Your task to perform on an android device: Open Chrome and go to the settings page Image 0: 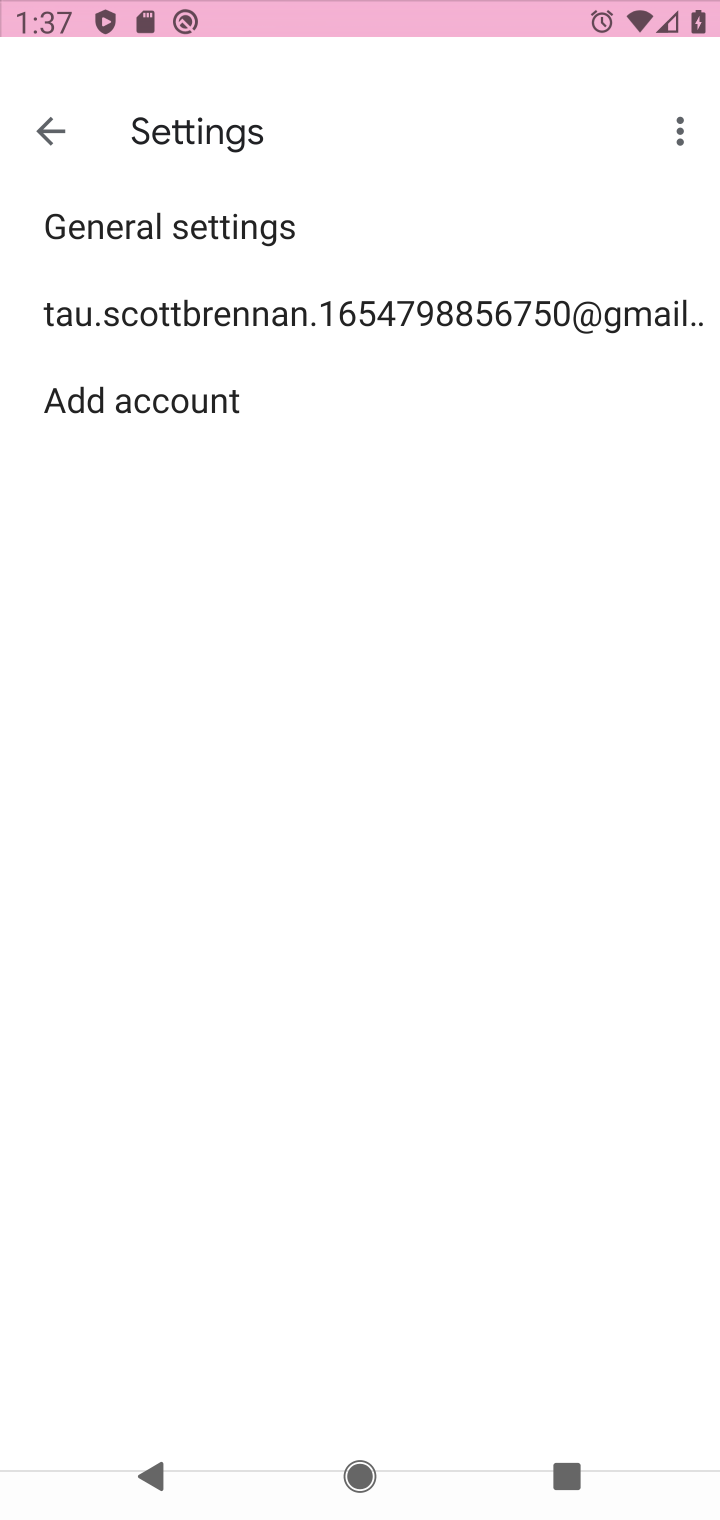
Step 0: press home button
Your task to perform on an android device: Open Chrome and go to the settings page Image 1: 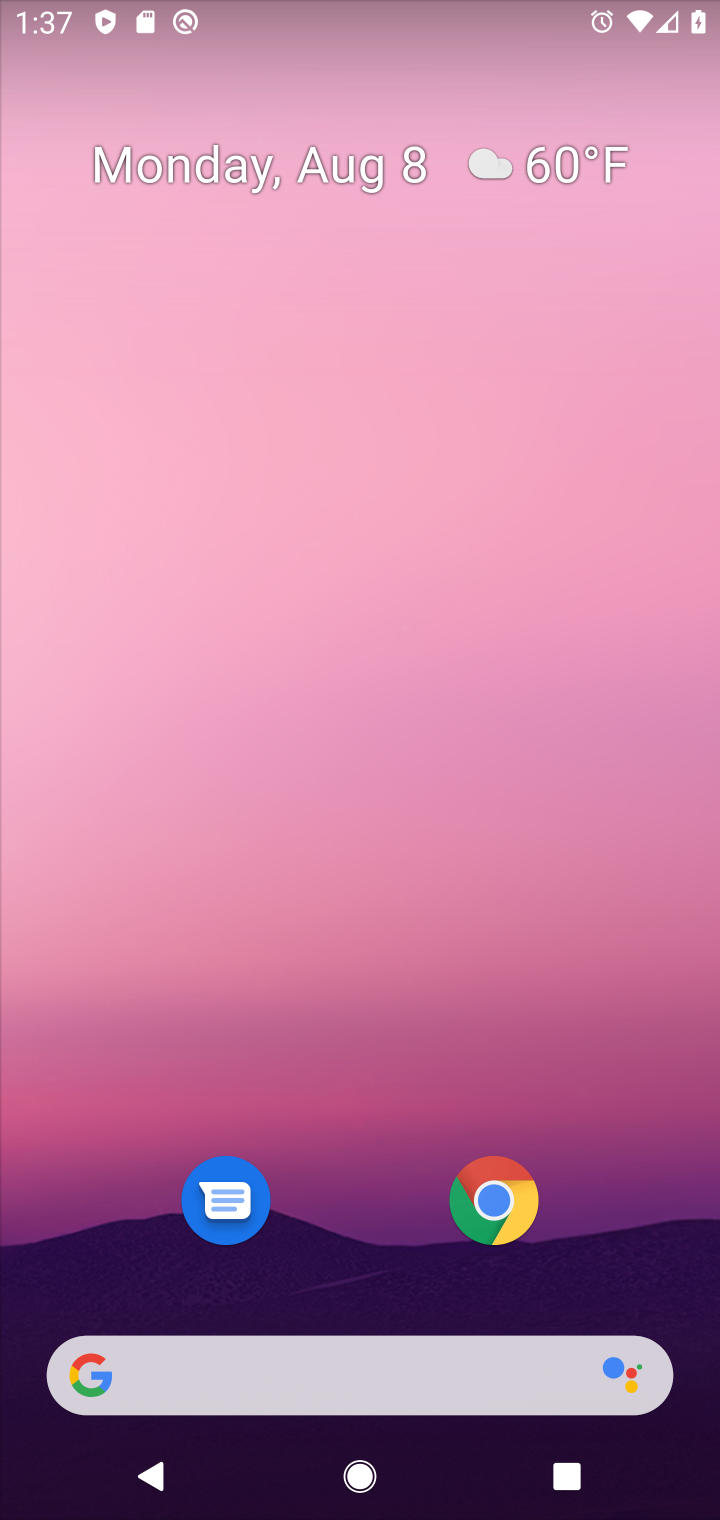
Step 1: drag from (380, 1278) to (418, 223)
Your task to perform on an android device: Open Chrome and go to the settings page Image 2: 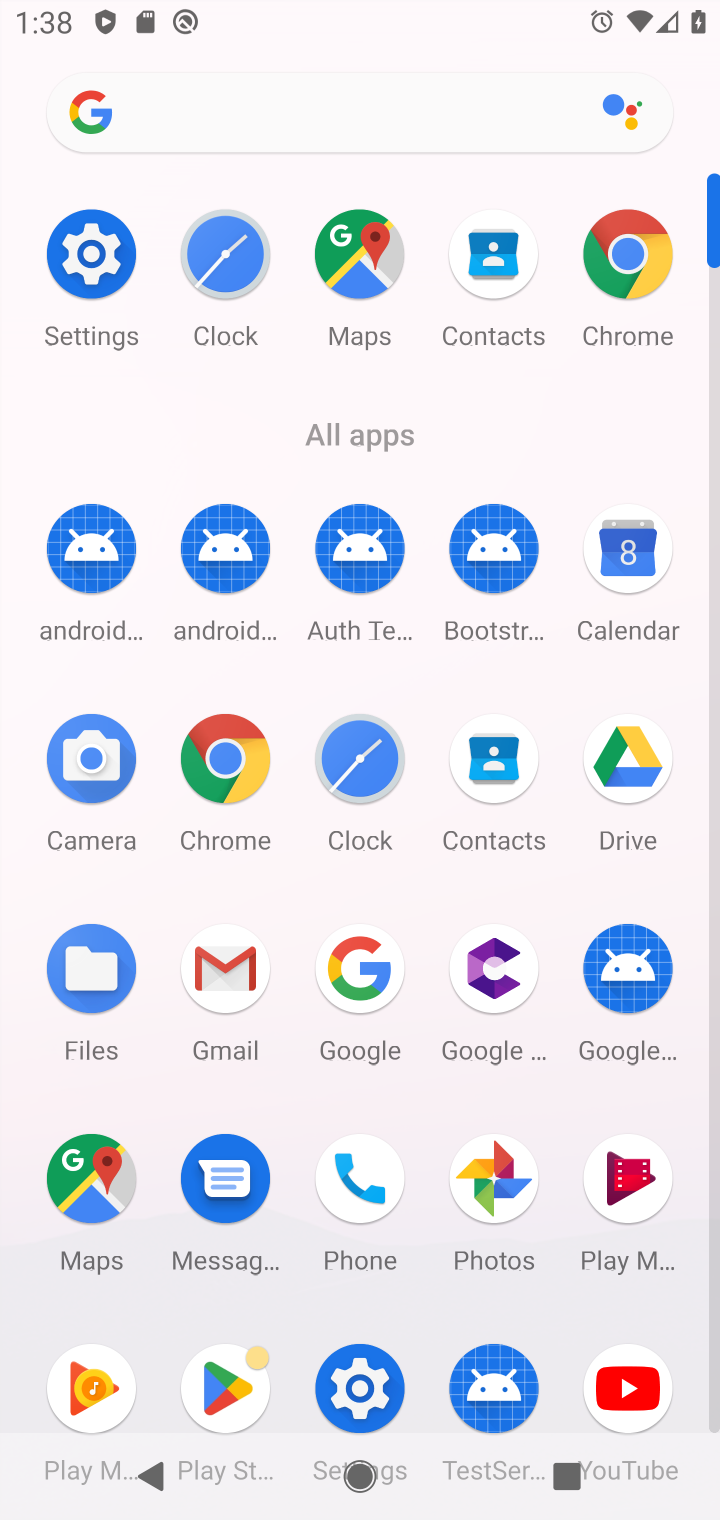
Step 2: click (216, 759)
Your task to perform on an android device: Open Chrome and go to the settings page Image 3: 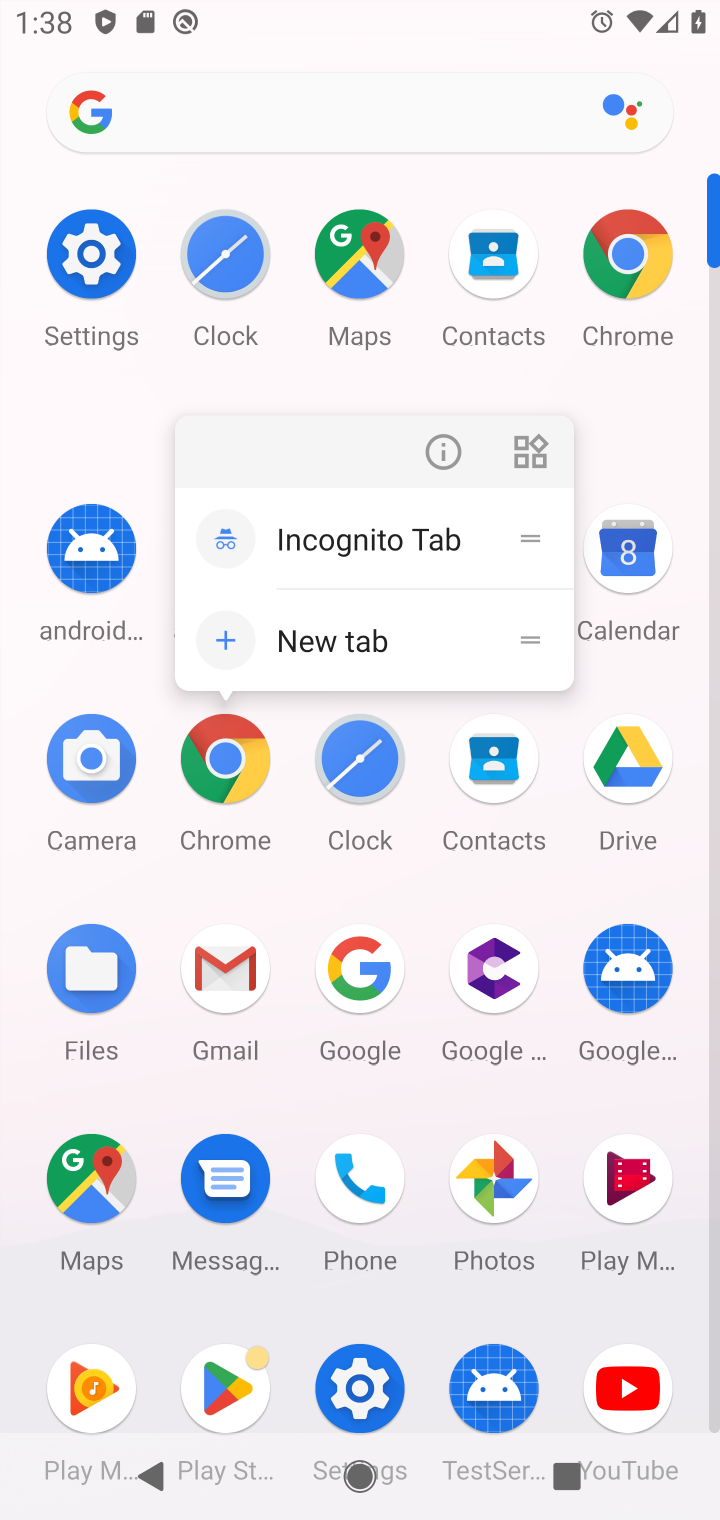
Step 3: click (216, 759)
Your task to perform on an android device: Open Chrome and go to the settings page Image 4: 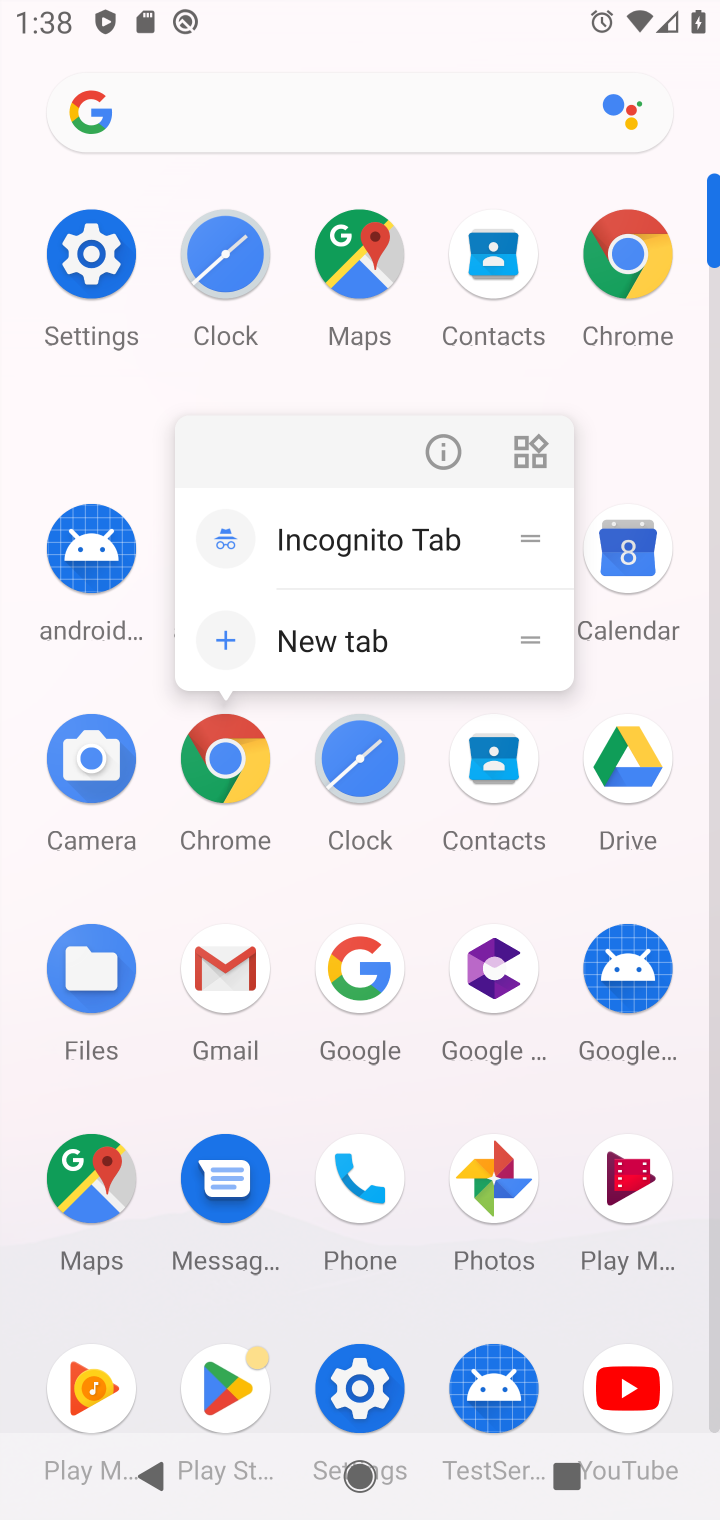
Step 4: click (228, 769)
Your task to perform on an android device: Open Chrome and go to the settings page Image 5: 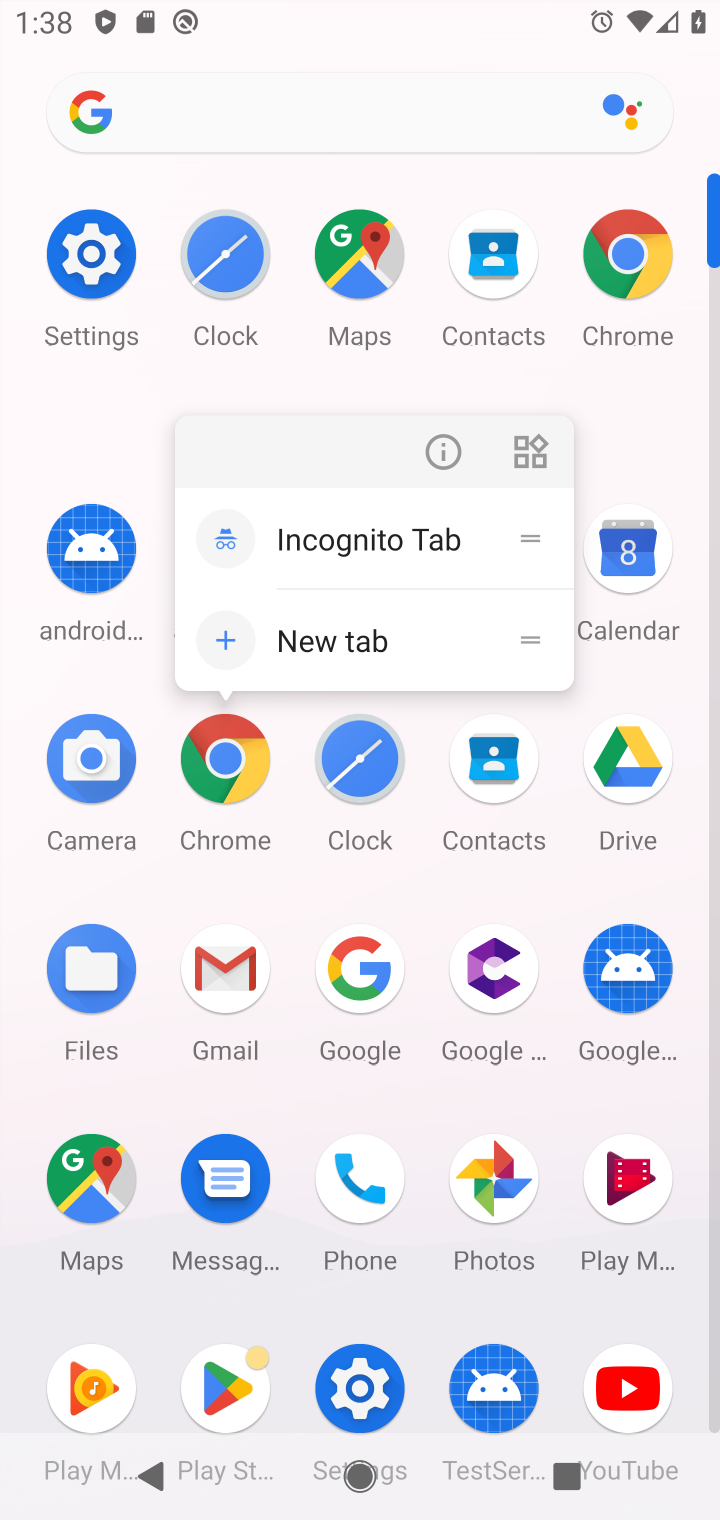
Step 5: click (609, 263)
Your task to perform on an android device: Open Chrome and go to the settings page Image 6: 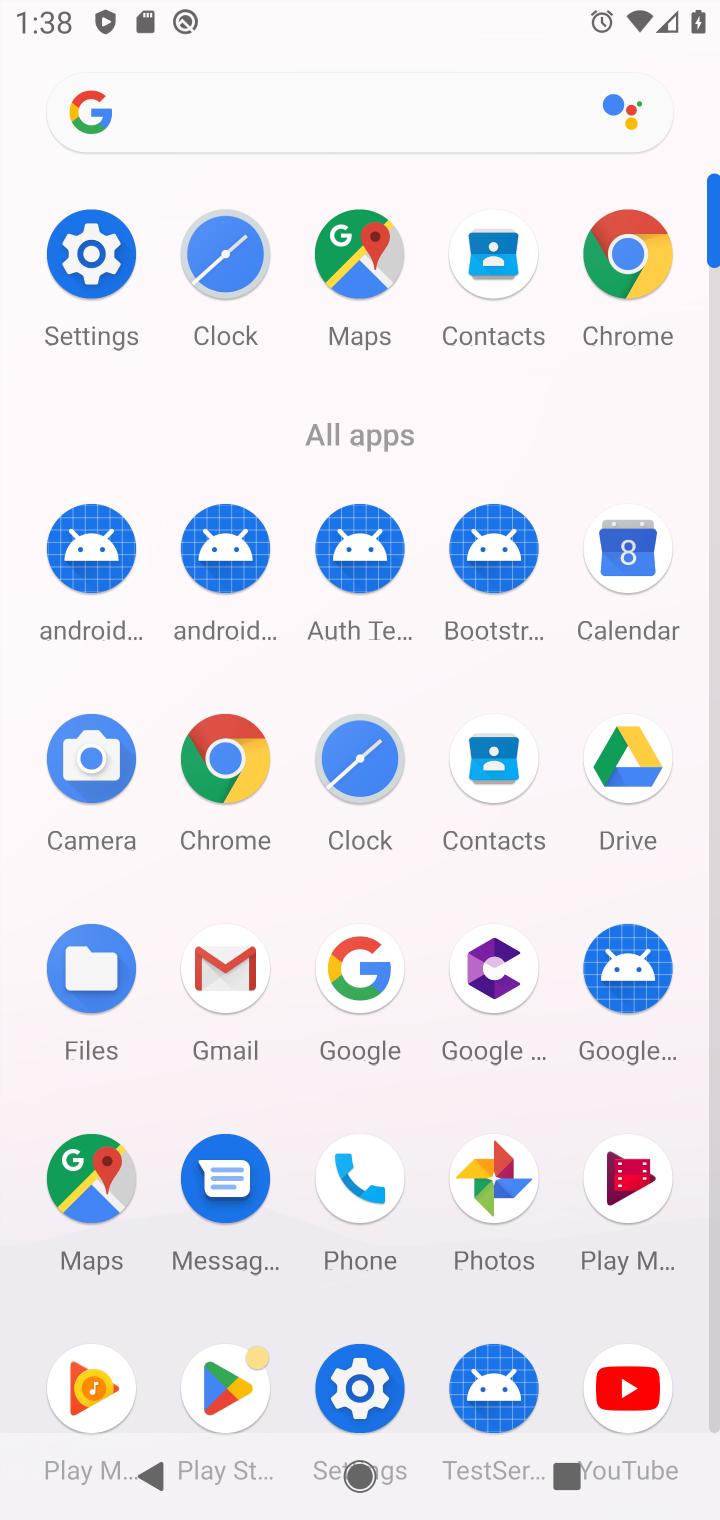
Step 6: click (641, 242)
Your task to perform on an android device: Open Chrome and go to the settings page Image 7: 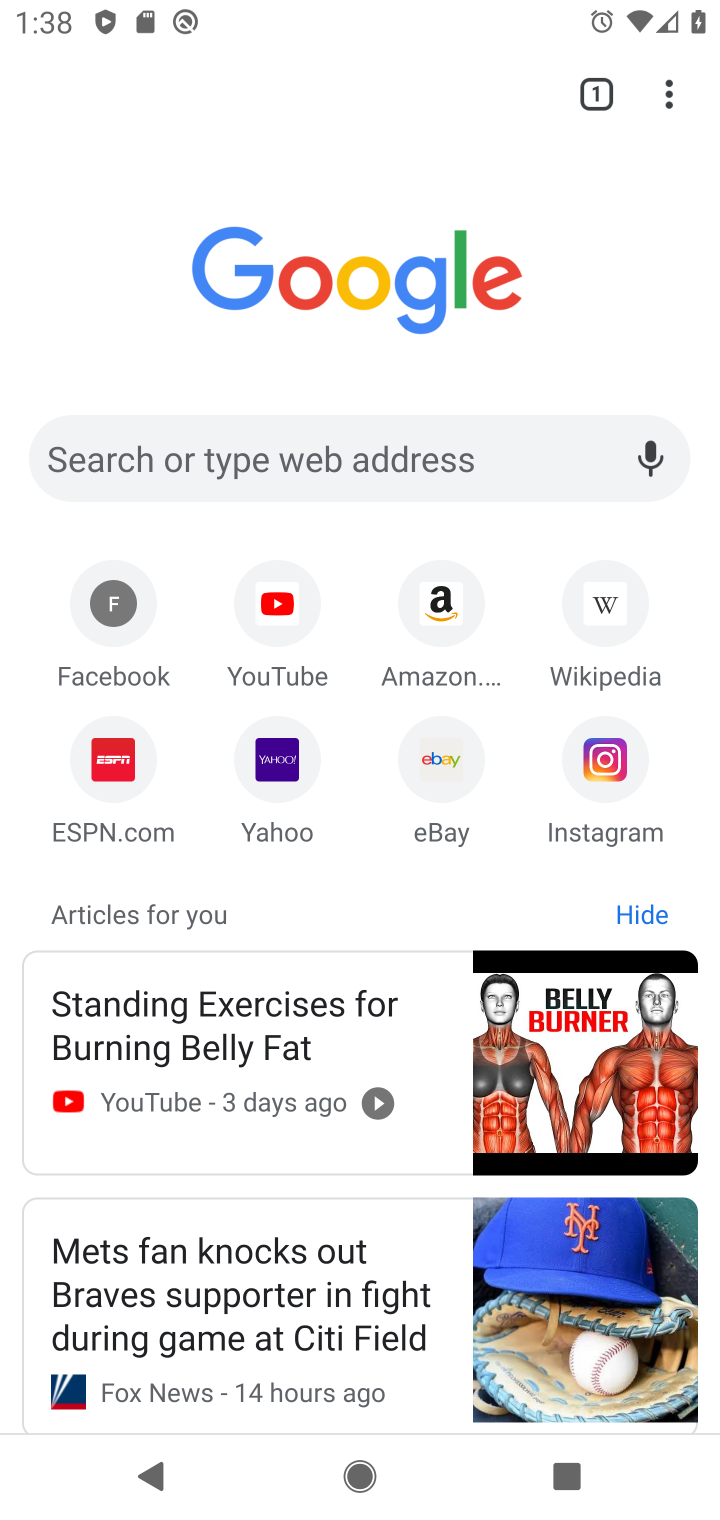
Step 7: click (690, 98)
Your task to perform on an android device: Open Chrome and go to the settings page Image 8: 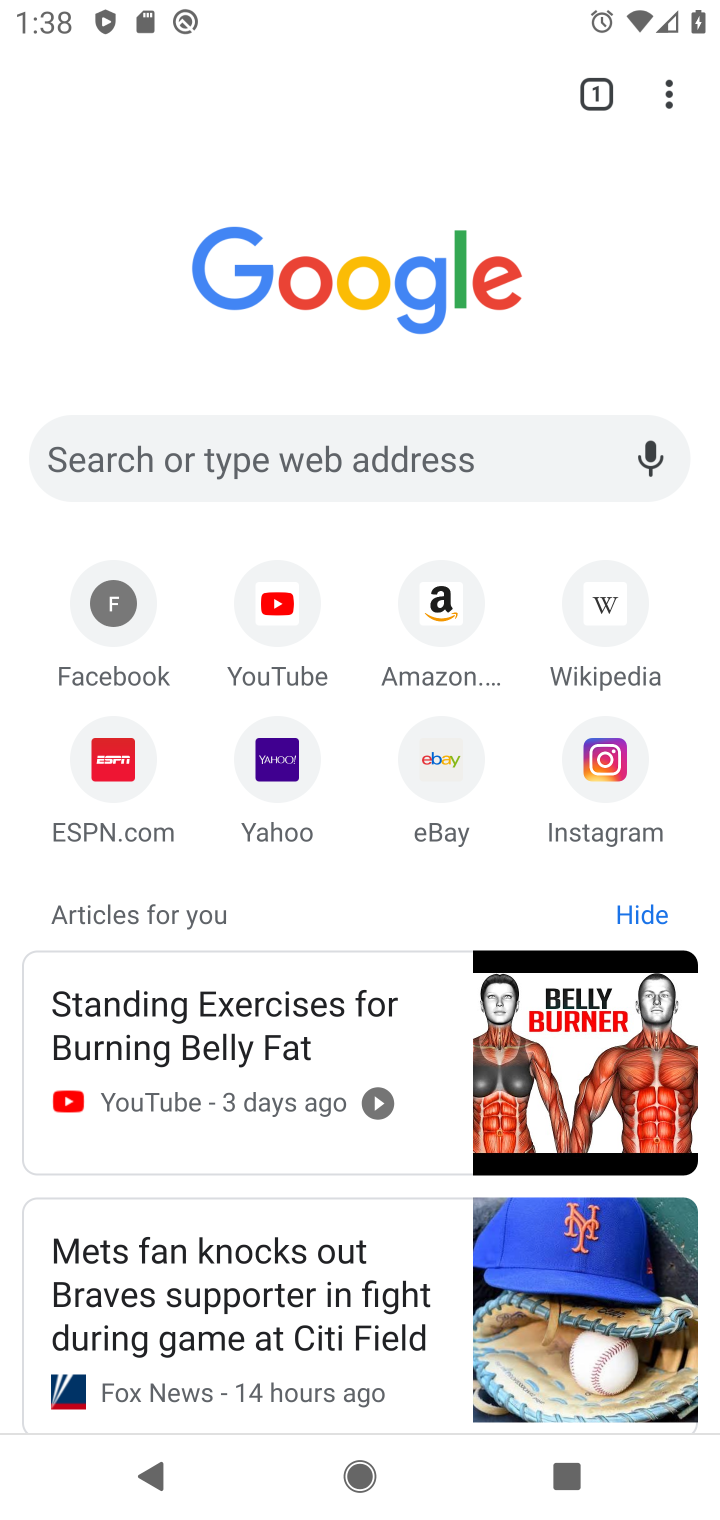
Step 8: click (678, 97)
Your task to perform on an android device: Open Chrome and go to the settings page Image 9: 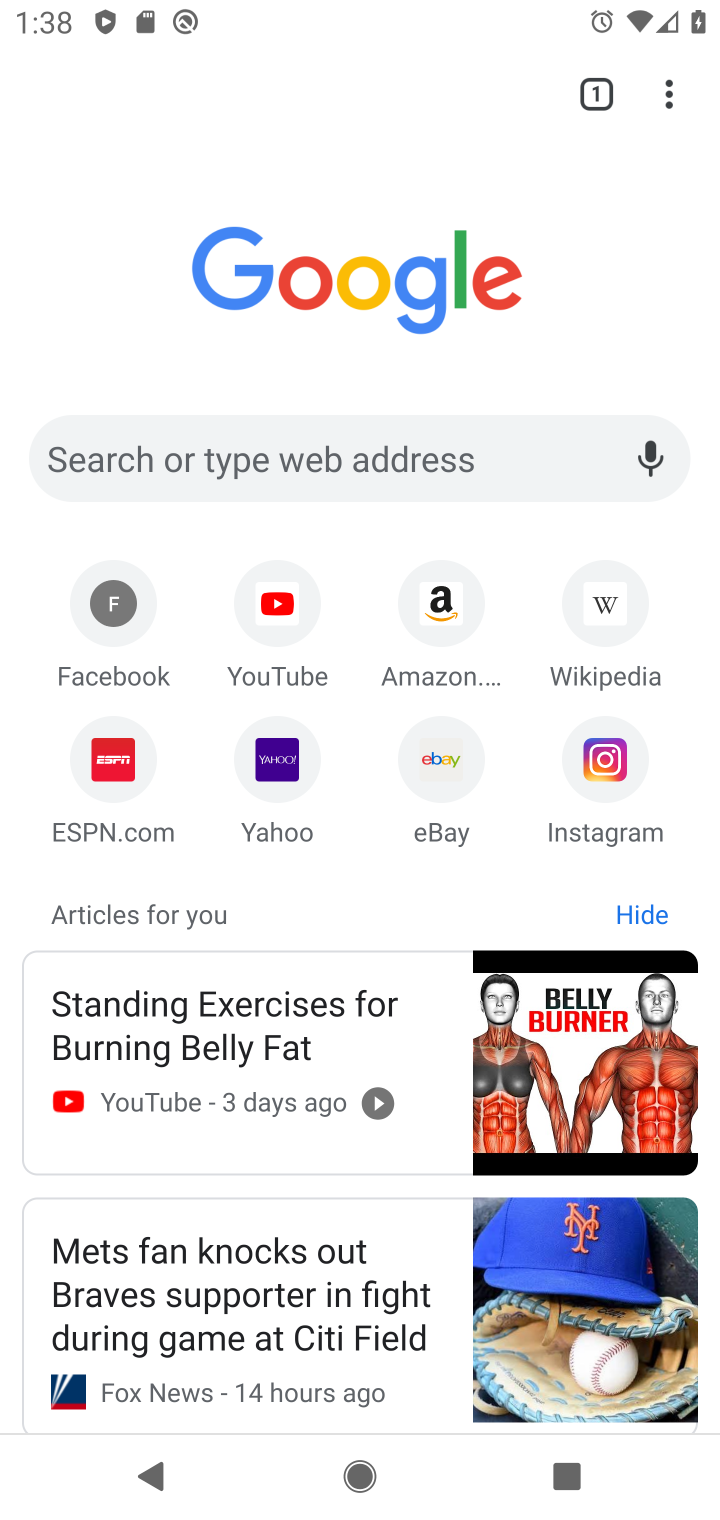
Step 9: click (665, 94)
Your task to perform on an android device: Open Chrome and go to the settings page Image 10: 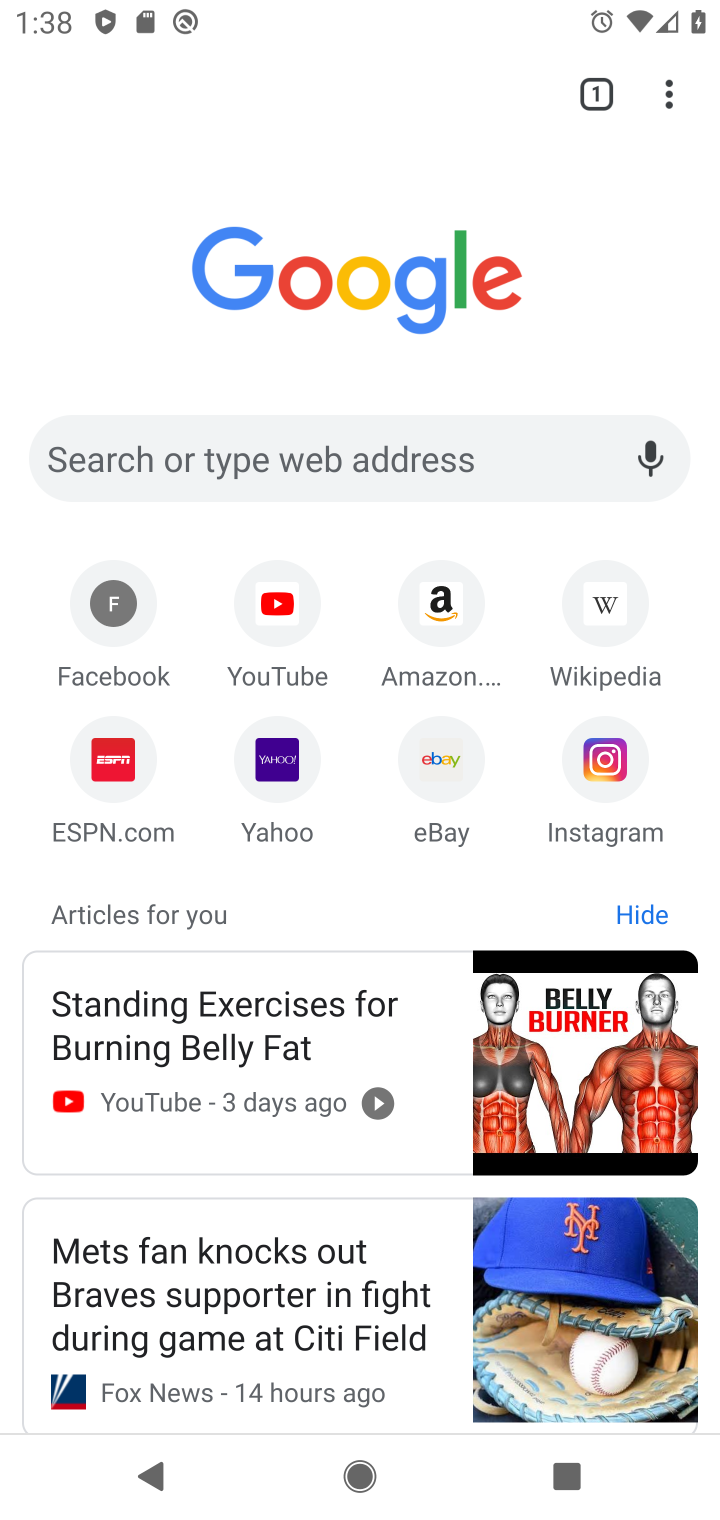
Step 10: click (667, 101)
Your task to perform on an android device: Open Chrome and go to the settings page Image 11: 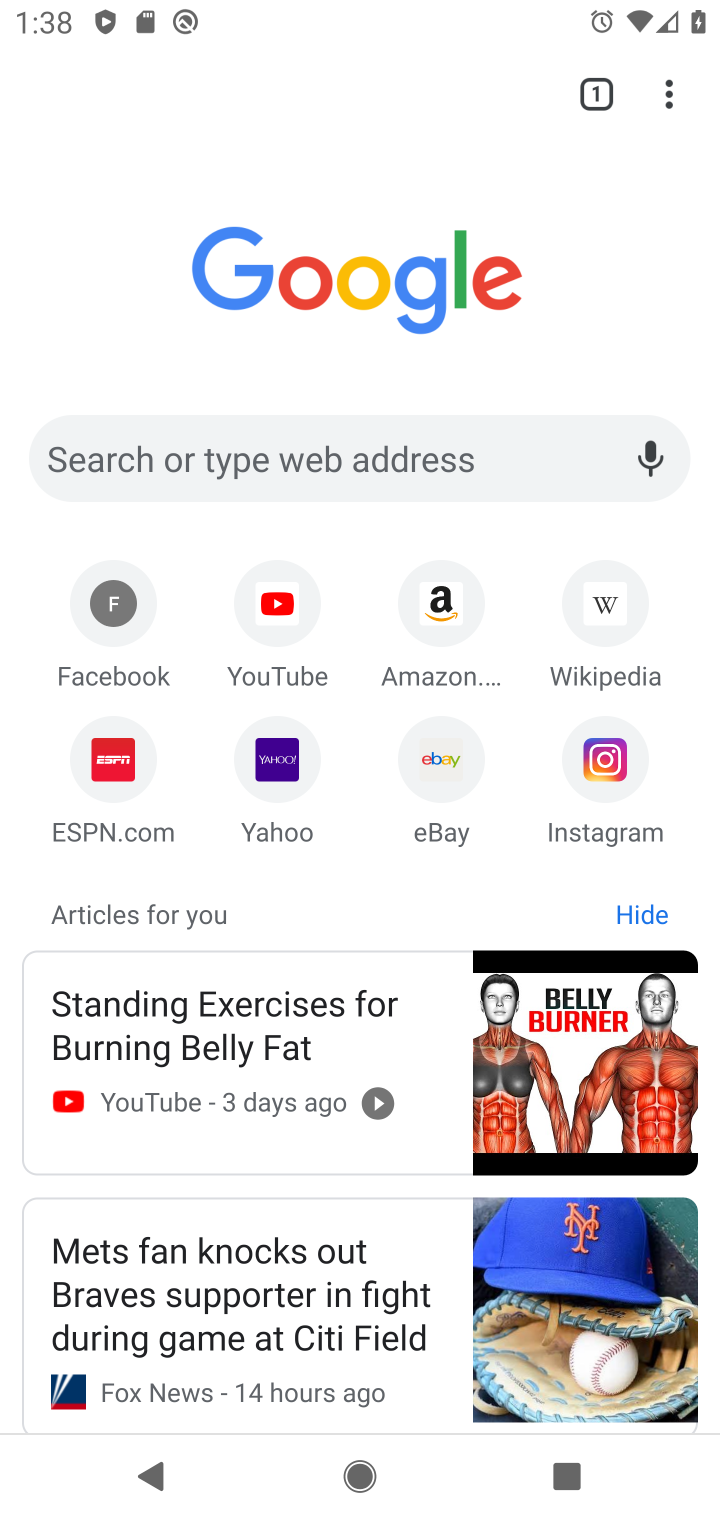
Step 11: click (670, 88)
Your task to perform on an android device: Open Chrome and go to the settings page Image 12: 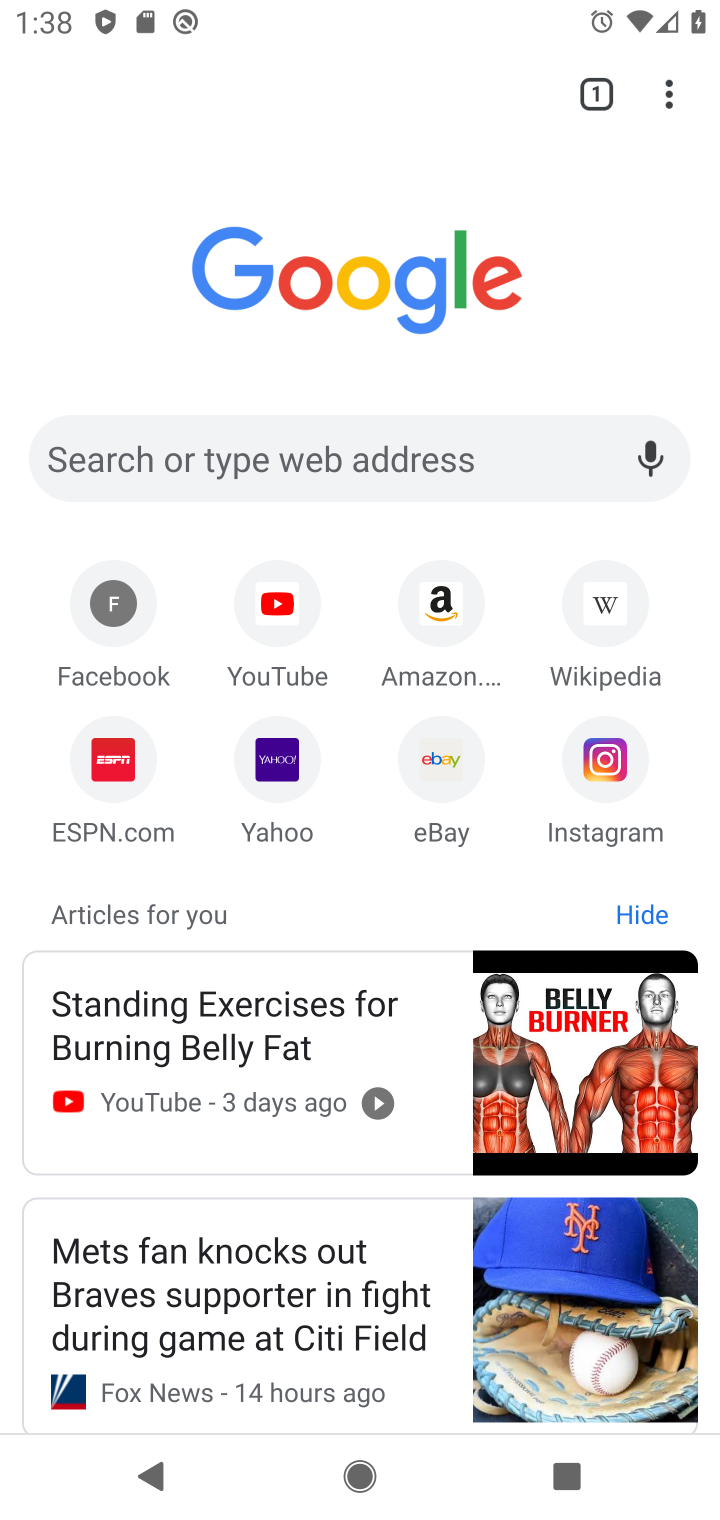
Step 12: click (681, 85)
Your task to perform on an android device: Open Chrome and go to the settings page Image 13: 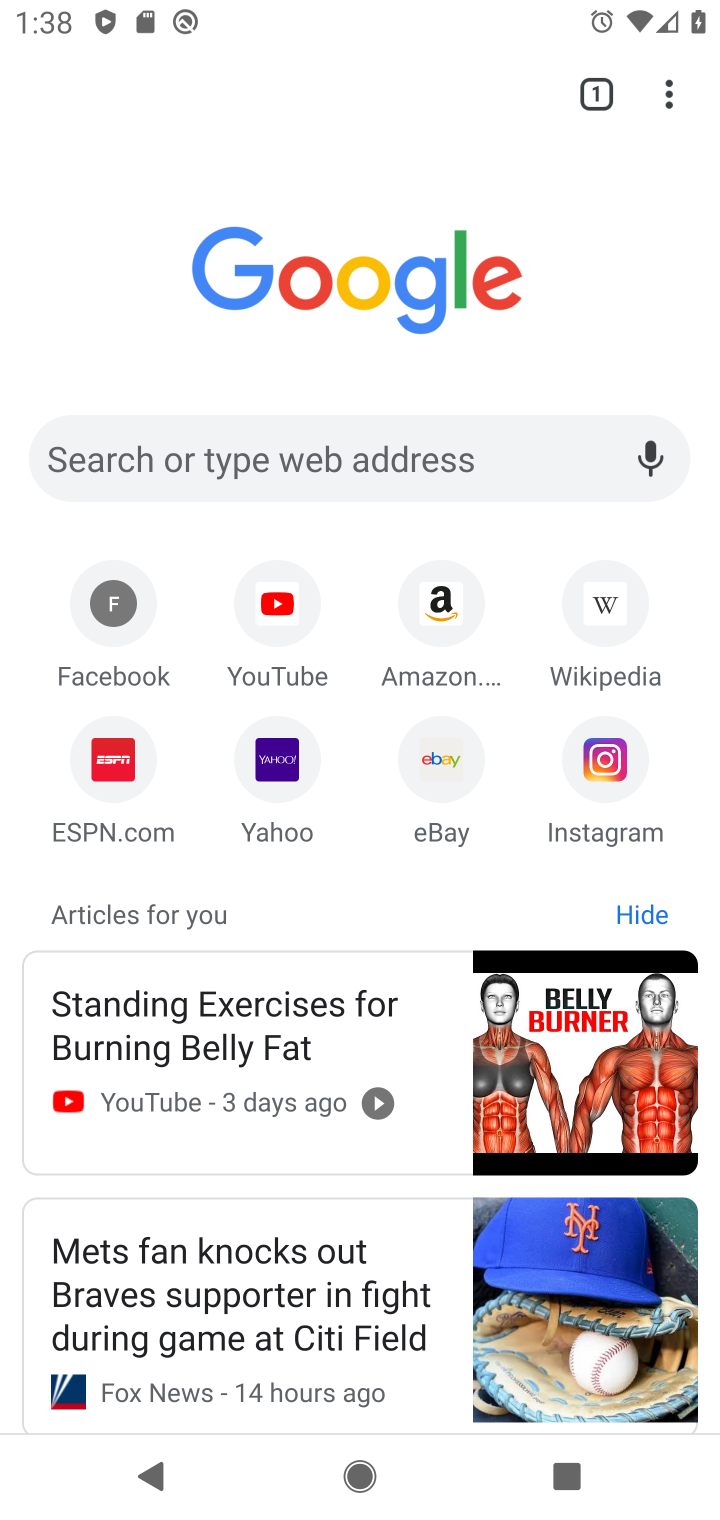
Step 13: click (670, 84)
Your task to perform on an android device: Open Chrome and go to the settings page Image 14: 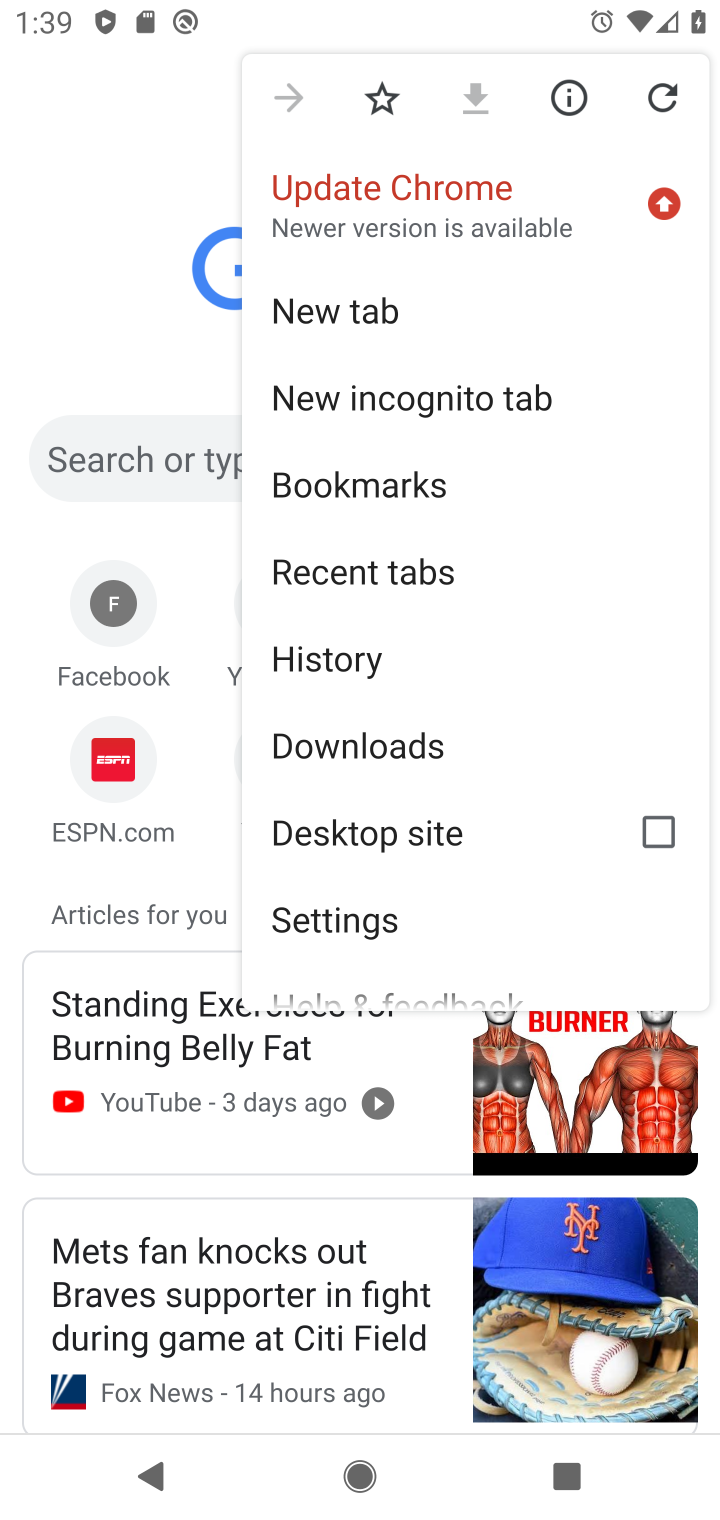
Step 14: click (419, 921)
Your task to perform on an android device: Open Chrome and go to the settings page Image 15: 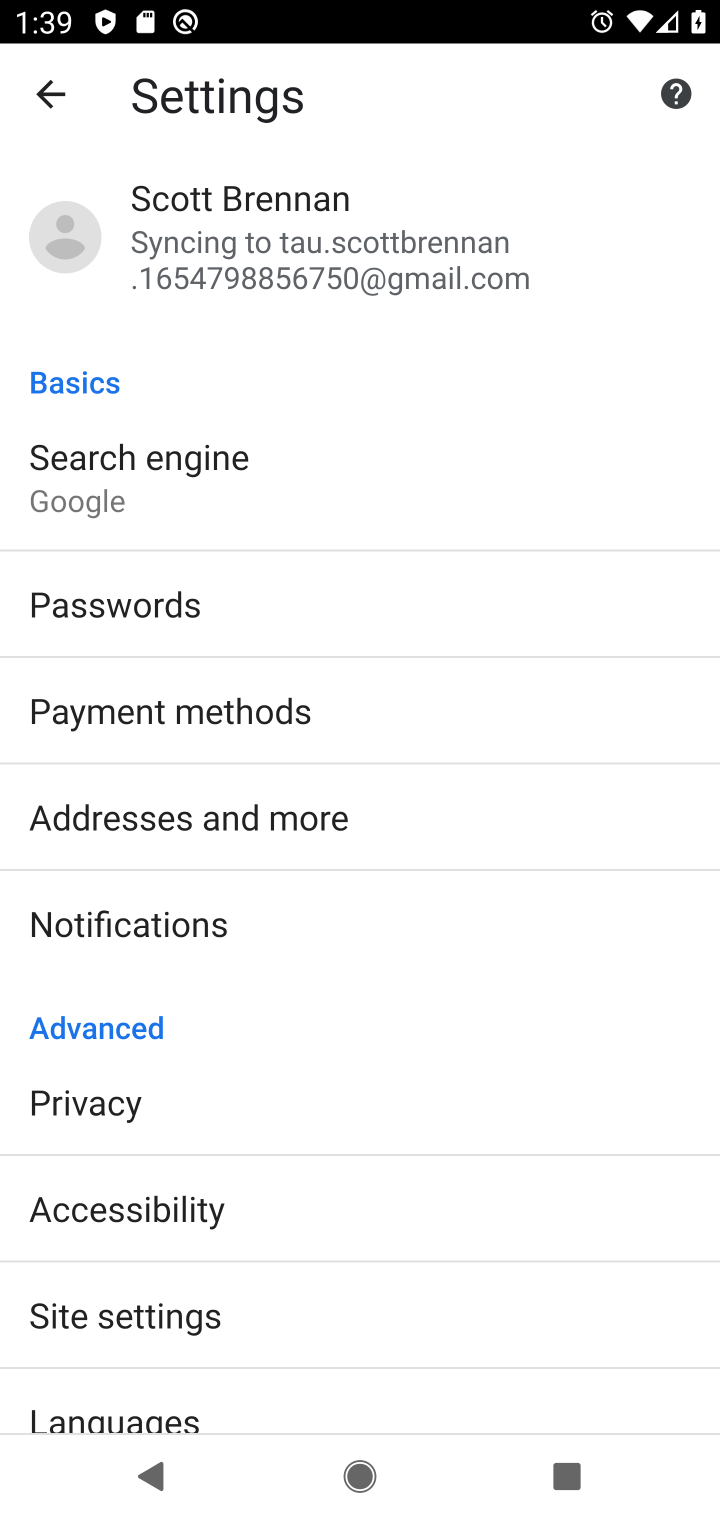
Step 15: task complete